Your task to perform on an android device: Go to eBay Image 0: 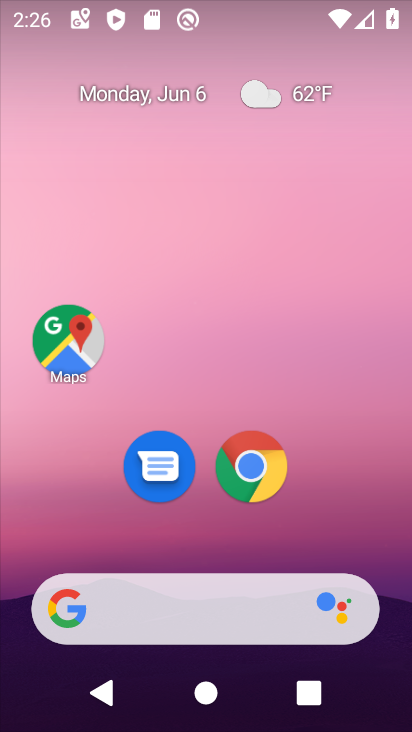
Step 0: click (263, 471)
Your task to perform on an android device: Go to eBay Image 1: 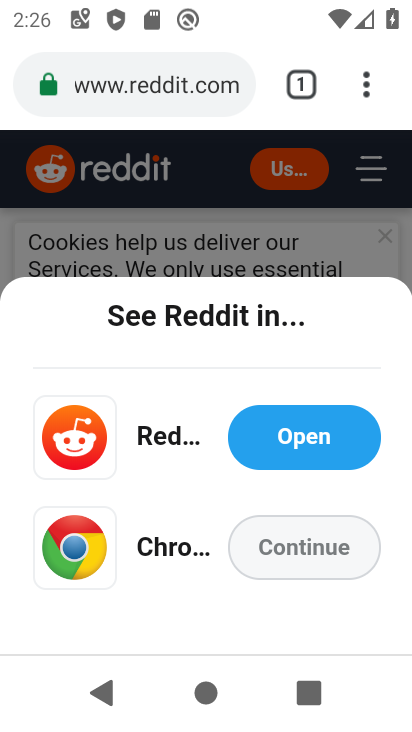
Step 1: click (289, 88)
Your task to perform on an android device: Go to eBay Image 2: 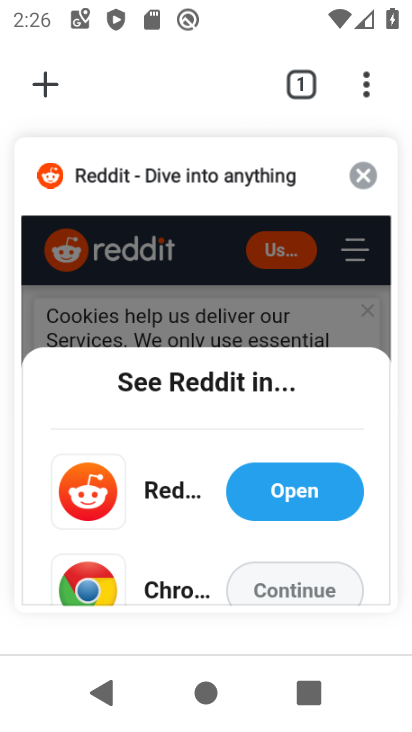
Step 2: click (48, 92)
Your task to perform on an android device: Go to eBay Image 3: 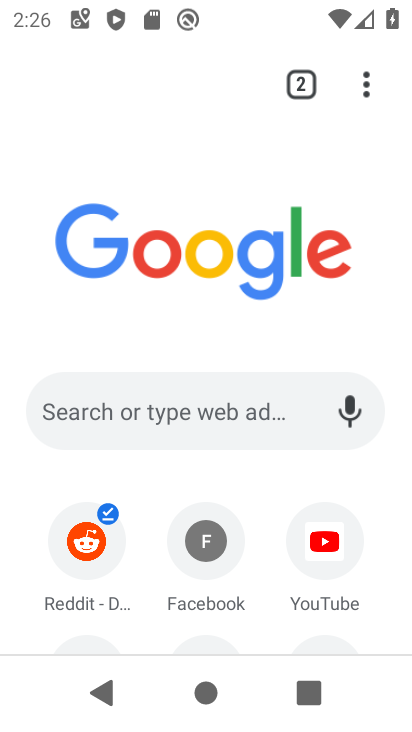
Step 3: drag from (272, 529) to (224, 147)
Your task to perform on an android device: Go to eBay Image 4: 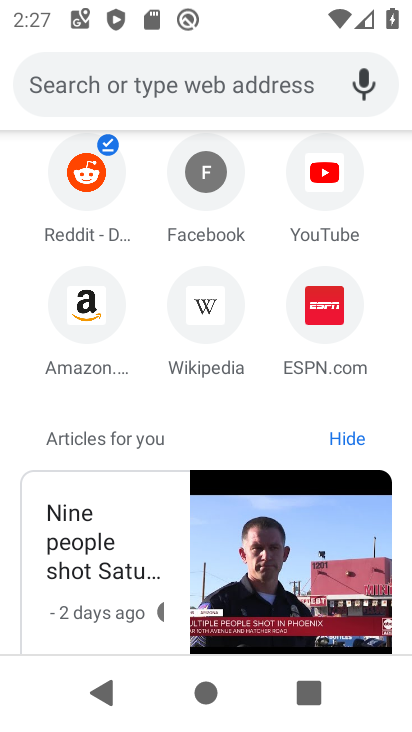
Step 4: click (225, 82)
Your task to perform on an android device: Go to eBay Image 5: 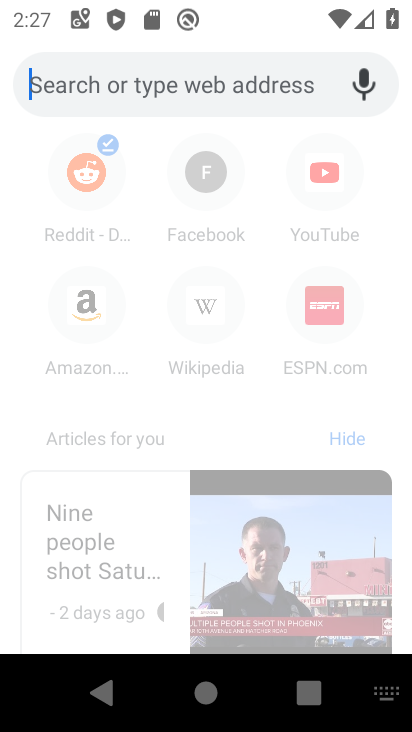
Step 5: type "eBay"
Your task to perform on an android device: Go to eBay Image 6: 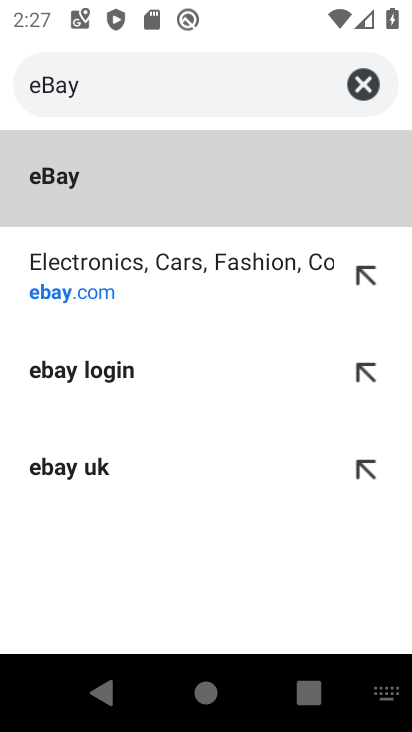
Step 6: click (71, 183)
Your task to perform on an android device: Go to eBay Image 7: 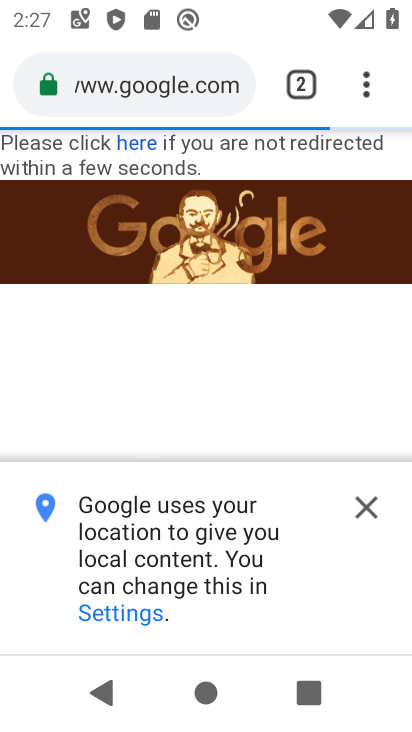
Step 7: click (371, 500)
Your task to perform on an android device: Go to eBay Image 8: 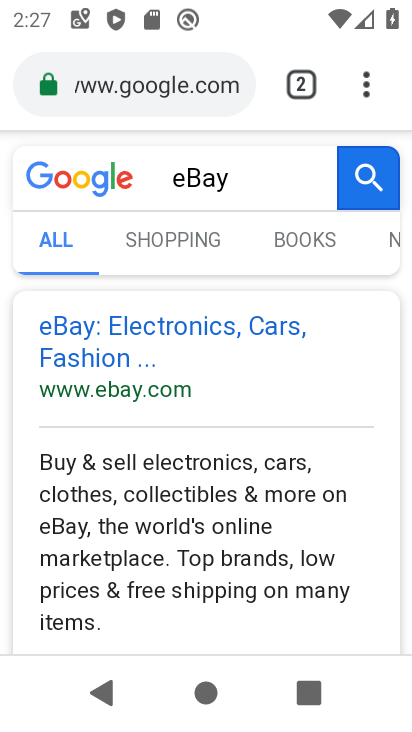
Step 8: click (184, 324)
Your task to perform on an android device: Go to eBay Image 9: 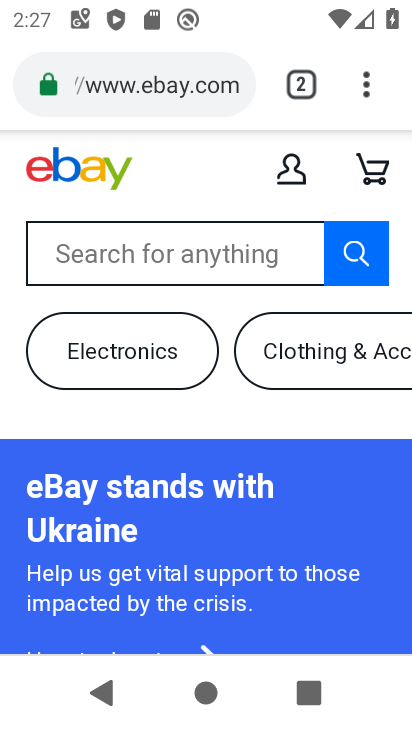
Step 9: task complete